Your task to perform on an android device: open app "Pinterest" (install if not already installed) and go to login screen Image 0: 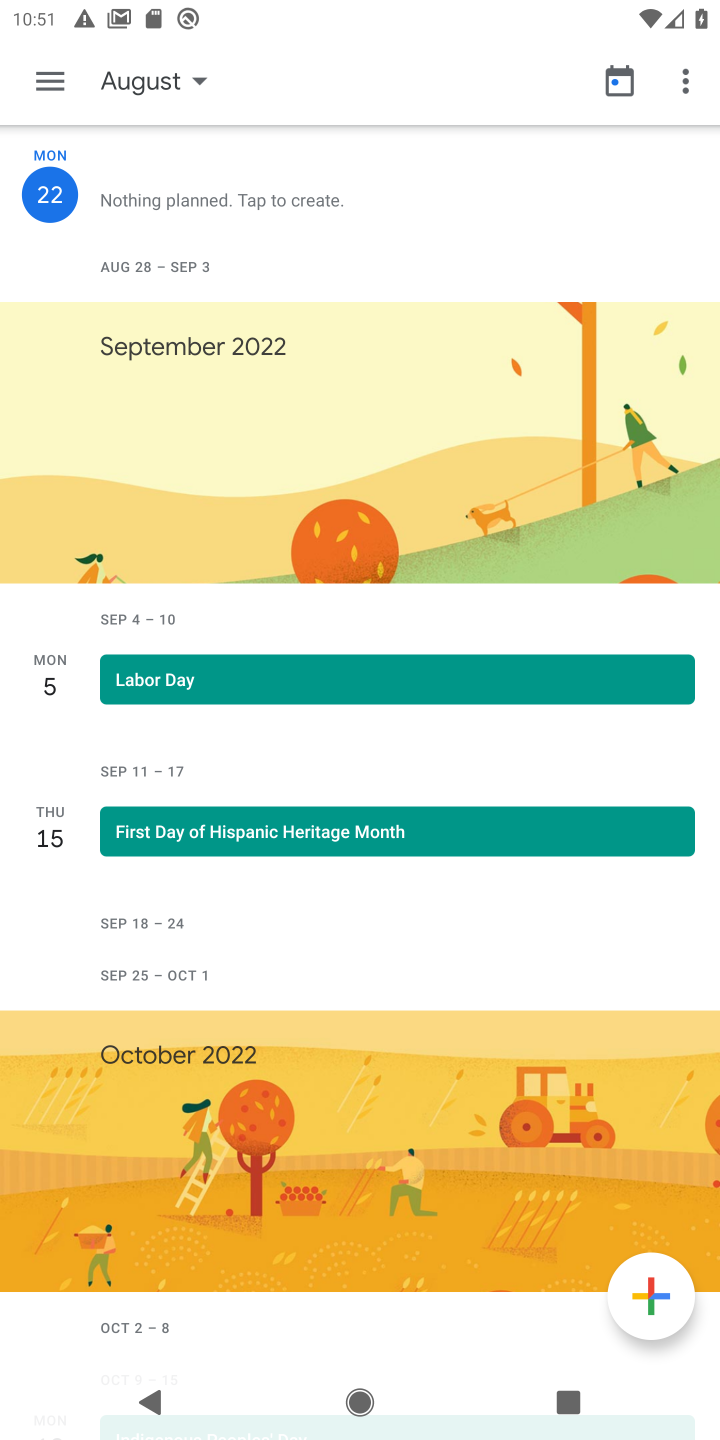
Step 0: press home button
Your task to perform on an android device: open app "Pinterest" (install if not already installed) and go to login screen Image 1: 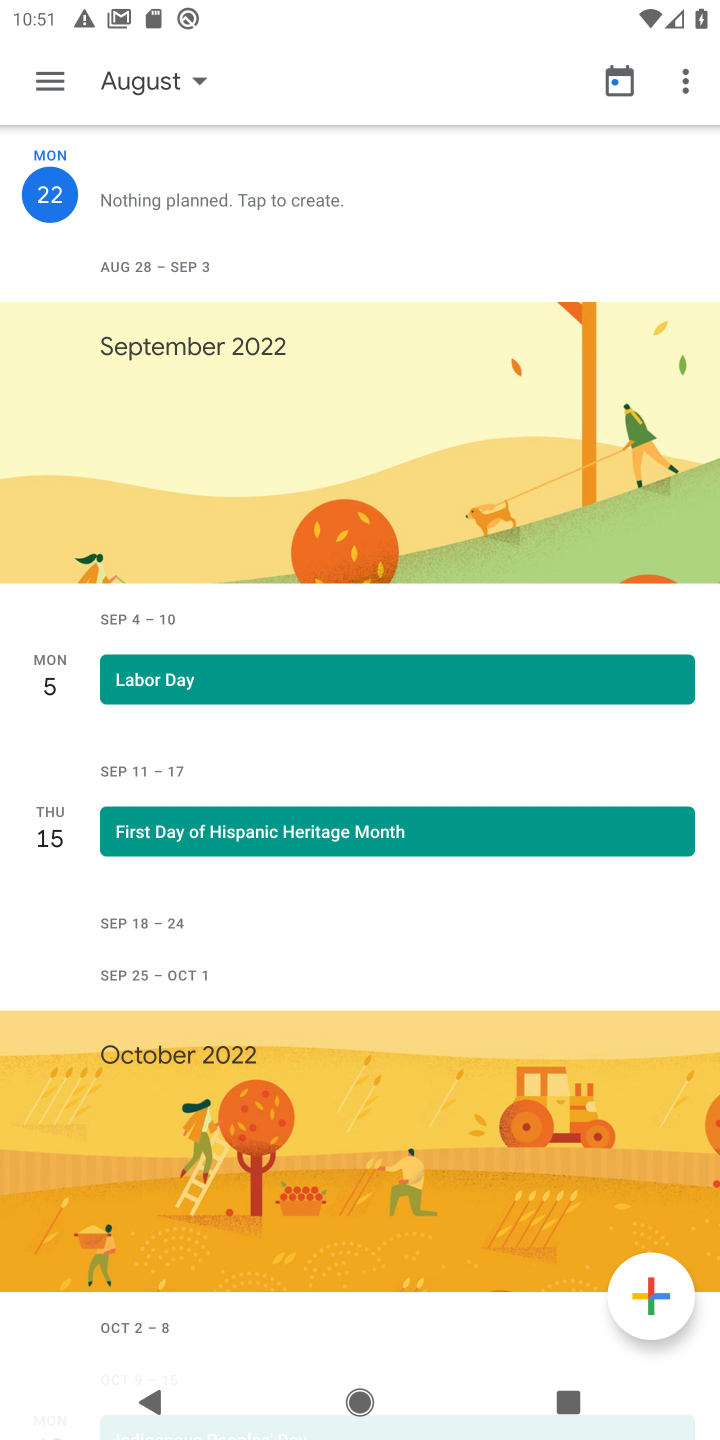
Step 1: press home button
Your task to perform on an android device: open app "Pinterest" (install if not already installed) and go to login screen Image 2: 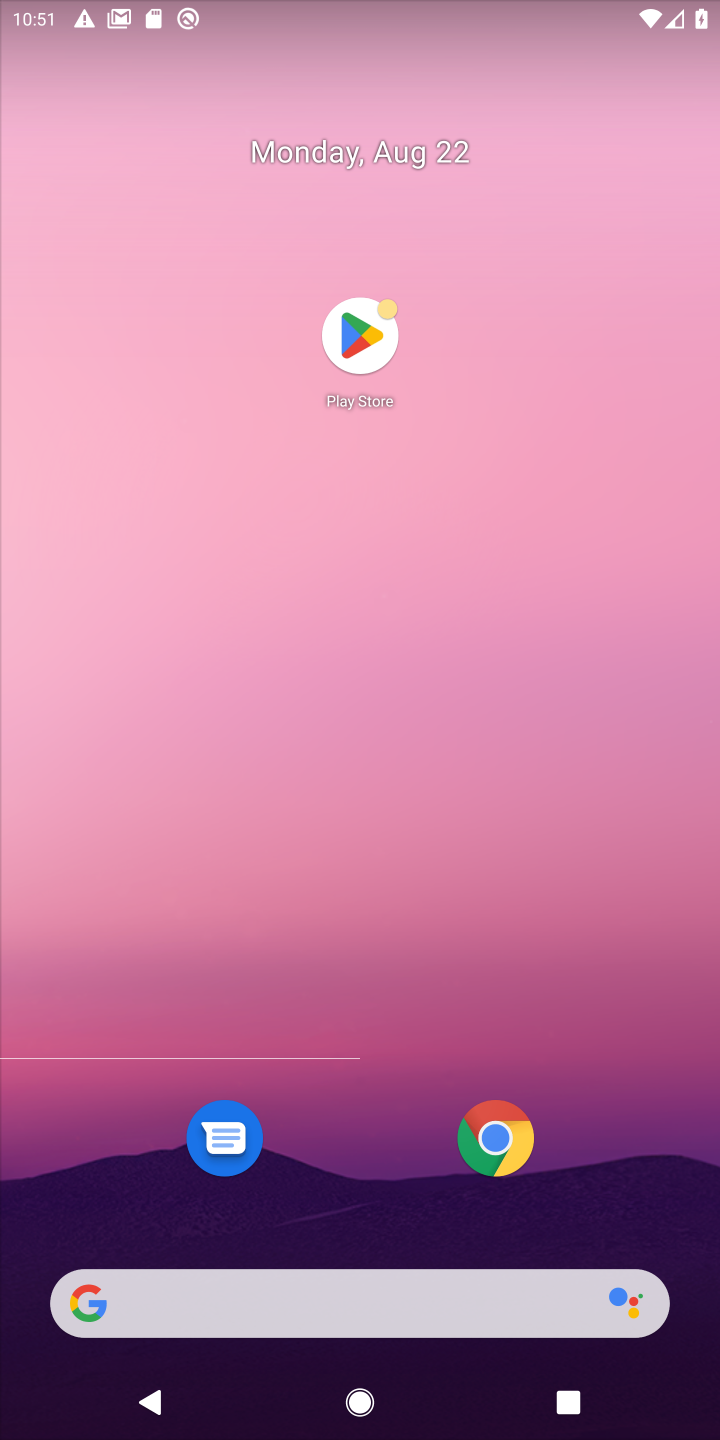
Step 2: press home button
Your task to perform on an android device: open app "Pinterest" (install if not already installed) and go to login screen Image 3: 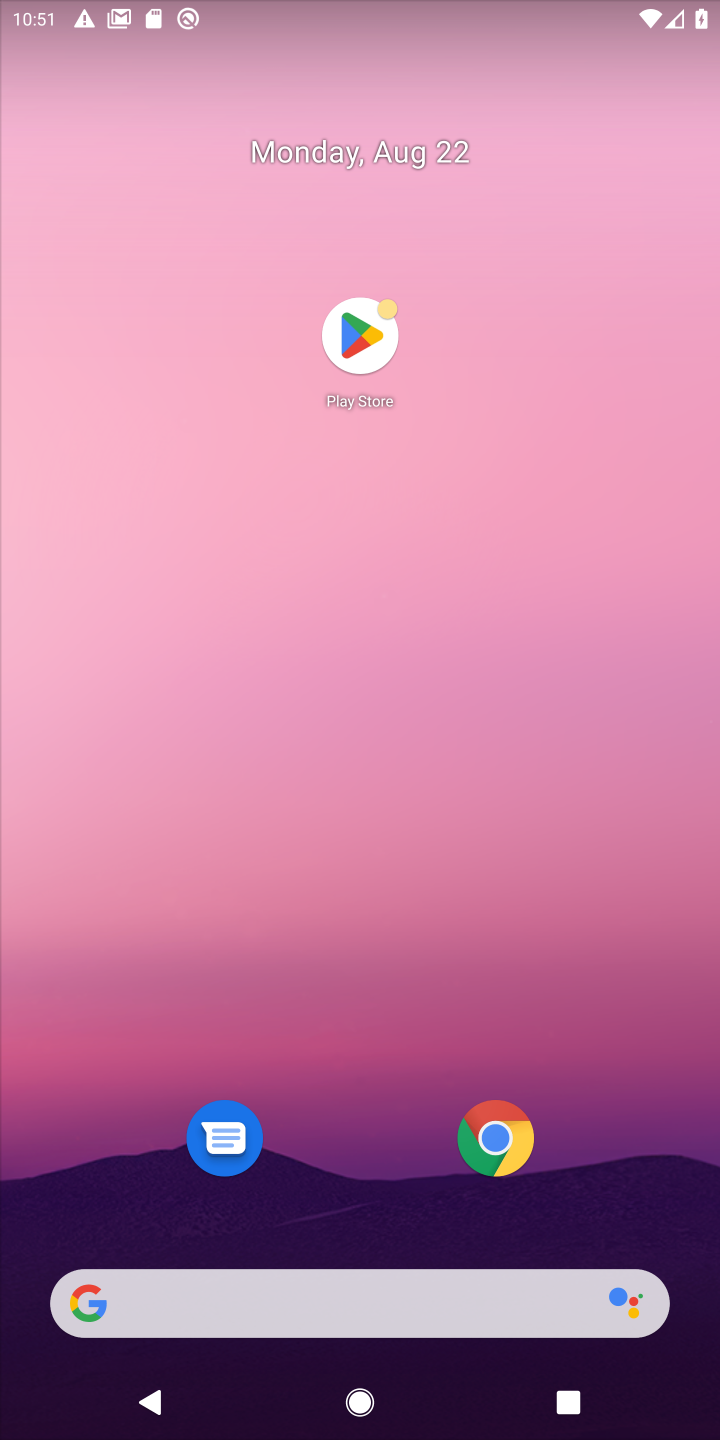
Step 3: click (355, 339)
Your task to perform on an android device: open app "Pinterest" (install if not already installed) and go to login screen Image 4: 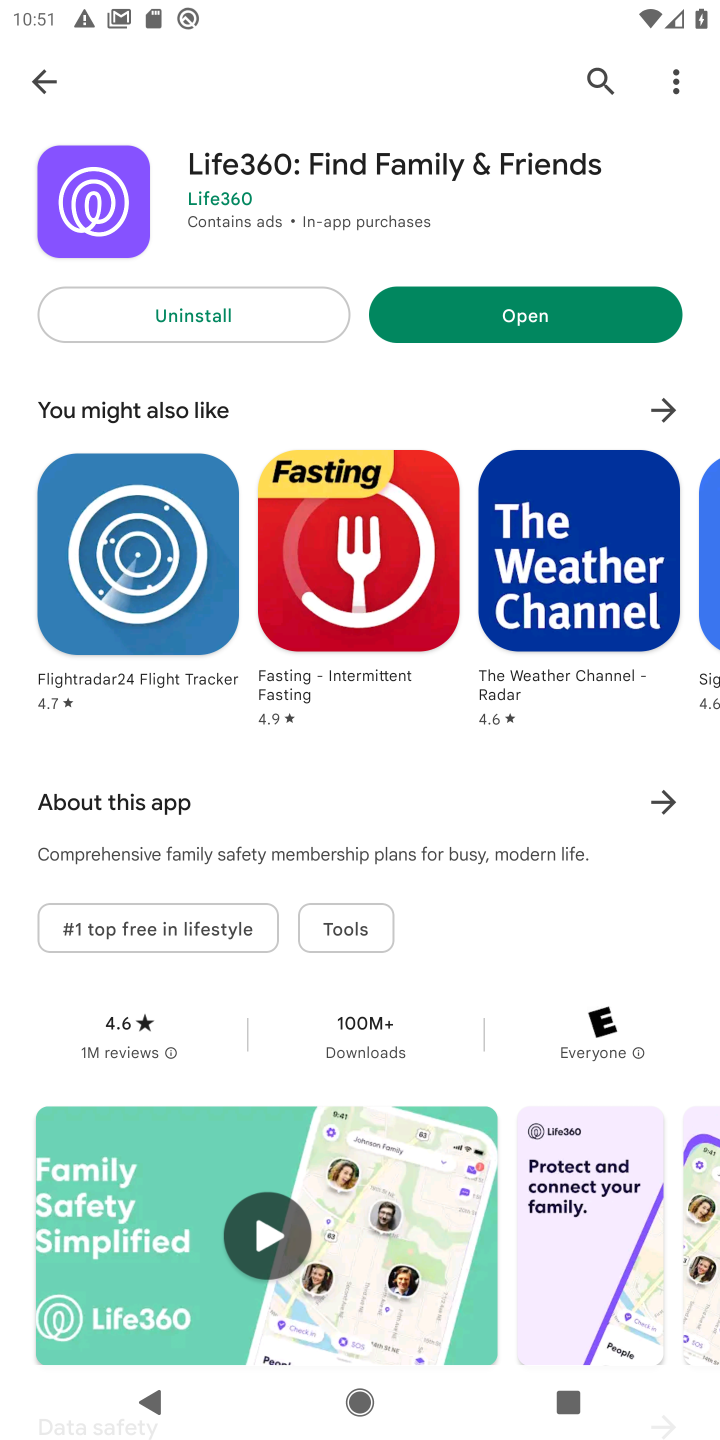
Step 4: click (593, 86)
Your task to perform on an android device: open app "Pinterest" (install if not already installed) and go to login screen Image 5: 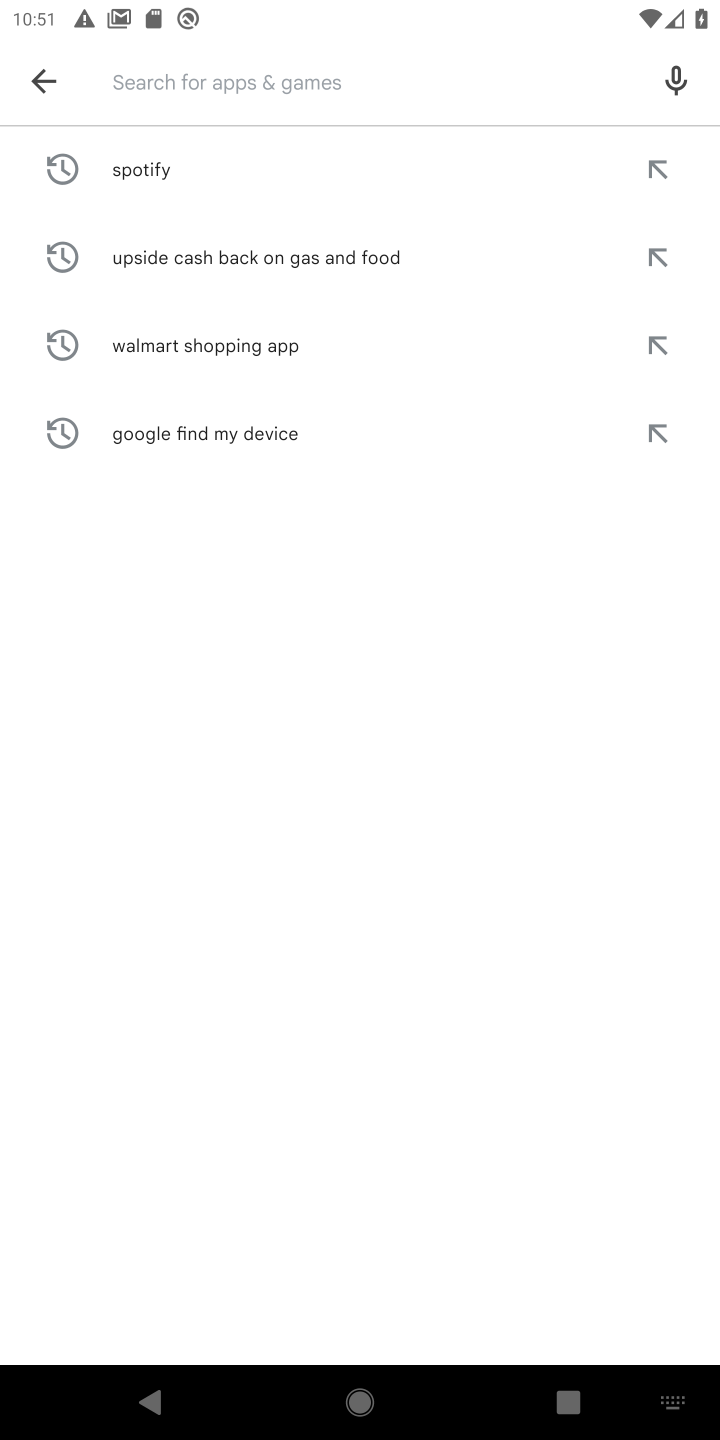
Step 5: click (238, 95)
Your task to perform on an android device: open app "Pinterest" (install if not already installed) and go to login screen Image 6: 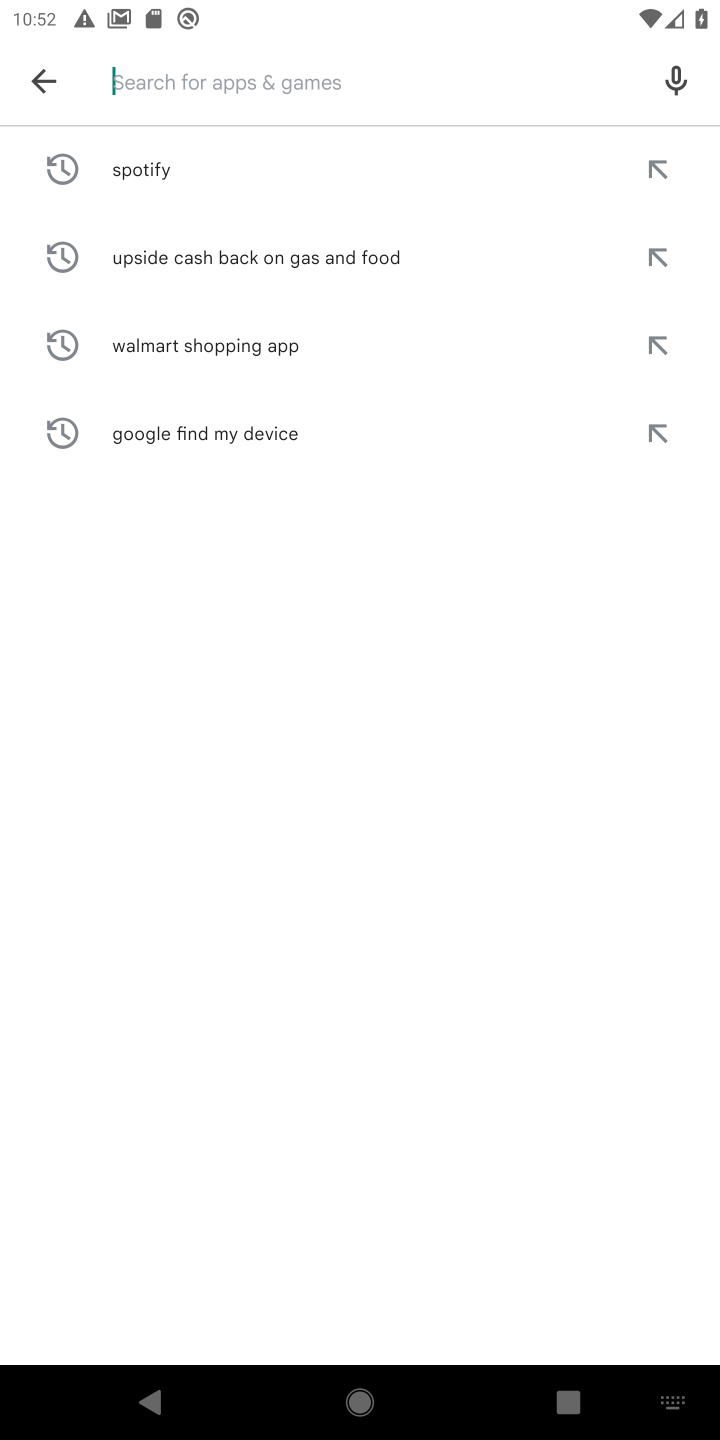
Step 6: type "pinterest"
Your task to perform on an android device: open app "Pinterest" (install if not already installed) and go to login screen Image 7: 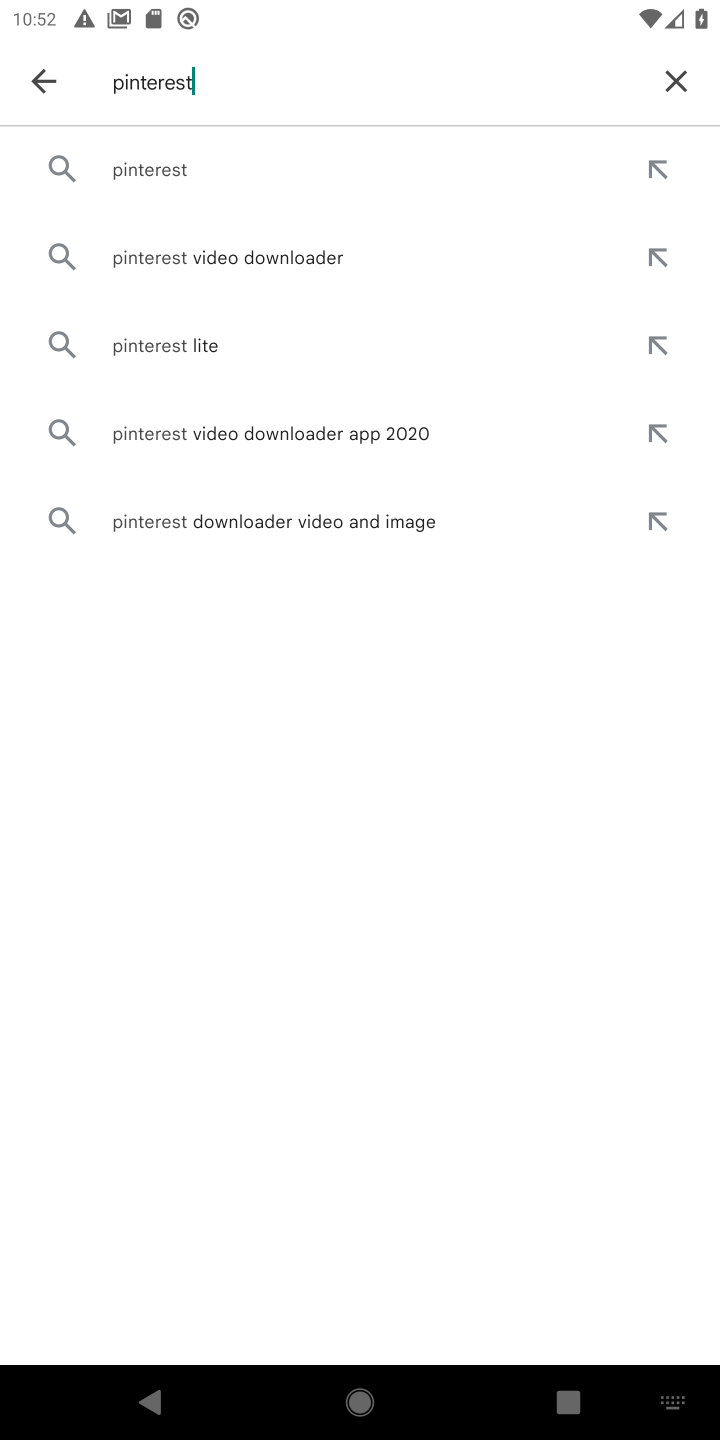
Step 7: click (177, 177)
Your task to perform on an android device: open app "Pinterest" (install if not already installed) and go to login screen Image 8: 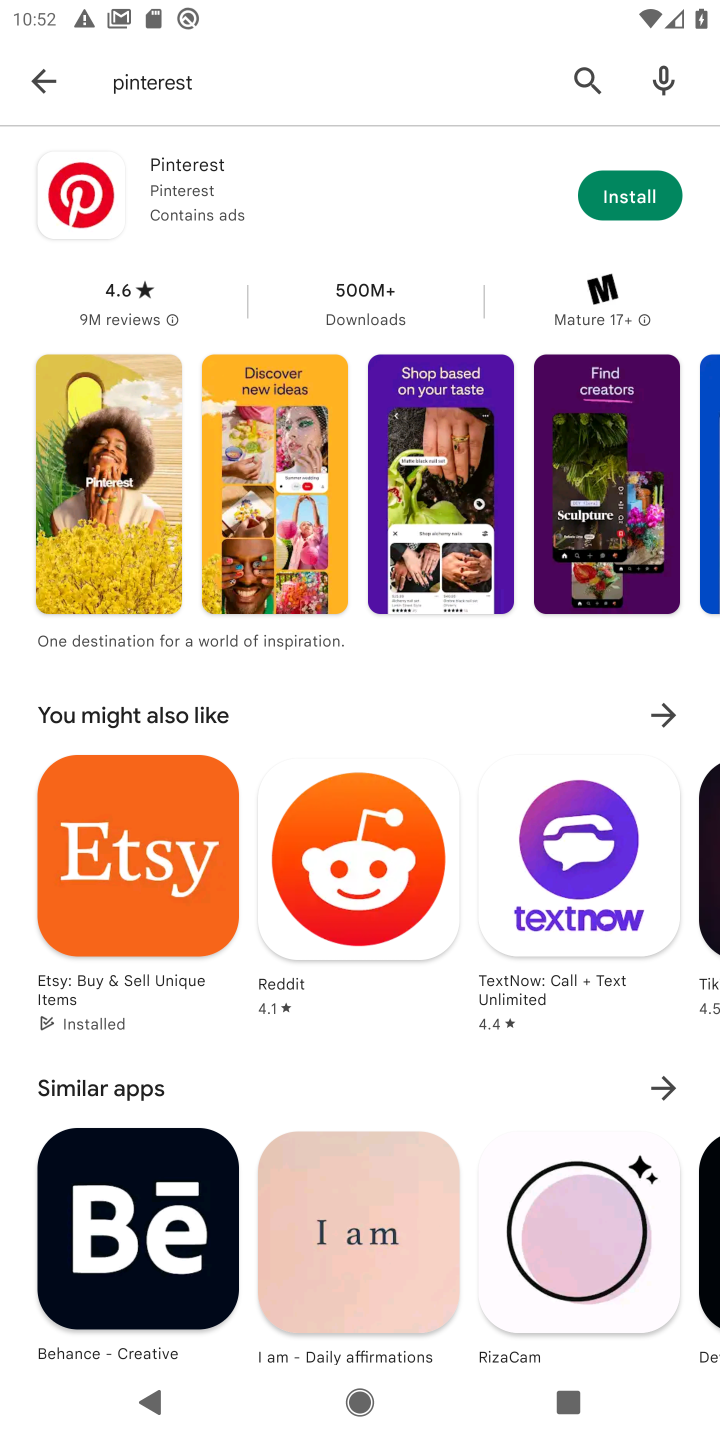
Step 8: click (643, 203)
Your task to perform on an android device: open app "Pinterest" (install if not already installed) and go to login screen Image 9: 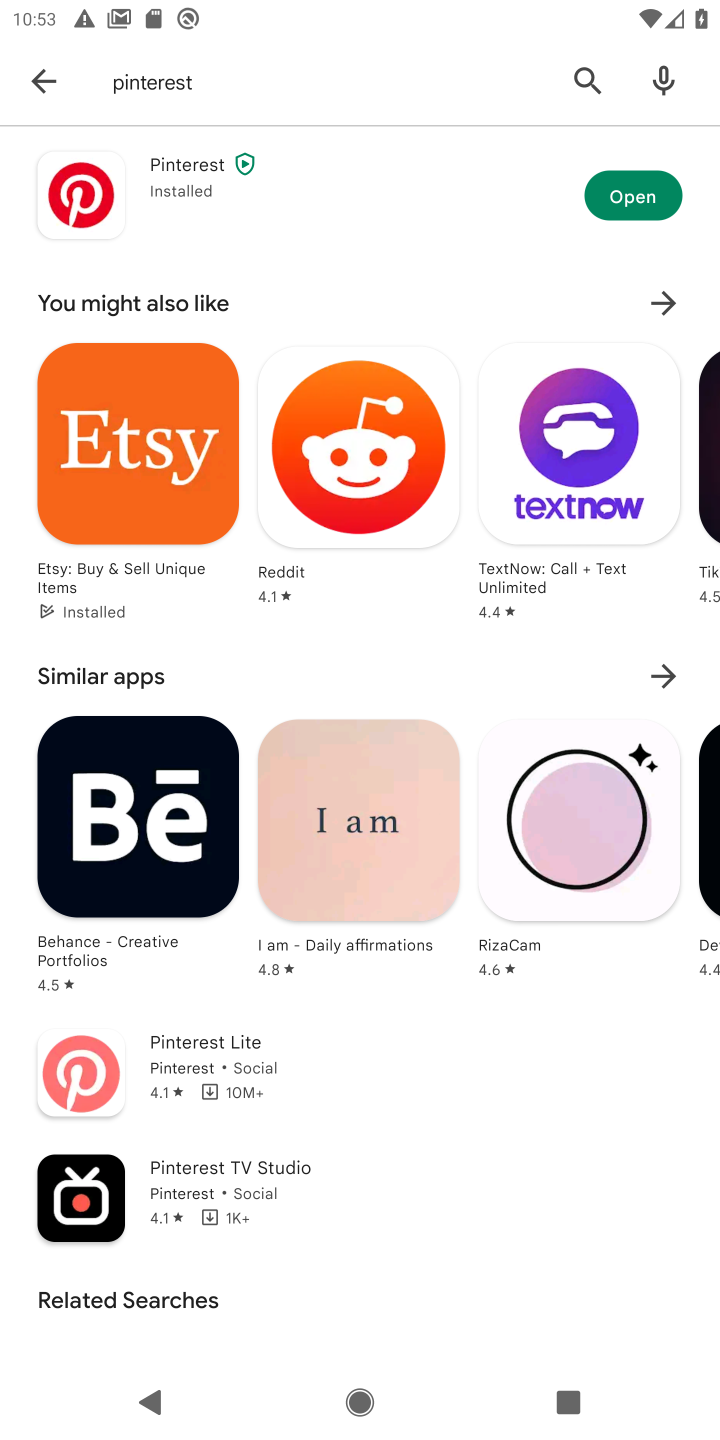
Step 9: click (652, 204)
Your task to perform on an android device: open app "Pinterest" (install if not already installed) and go to login screen Image 10: 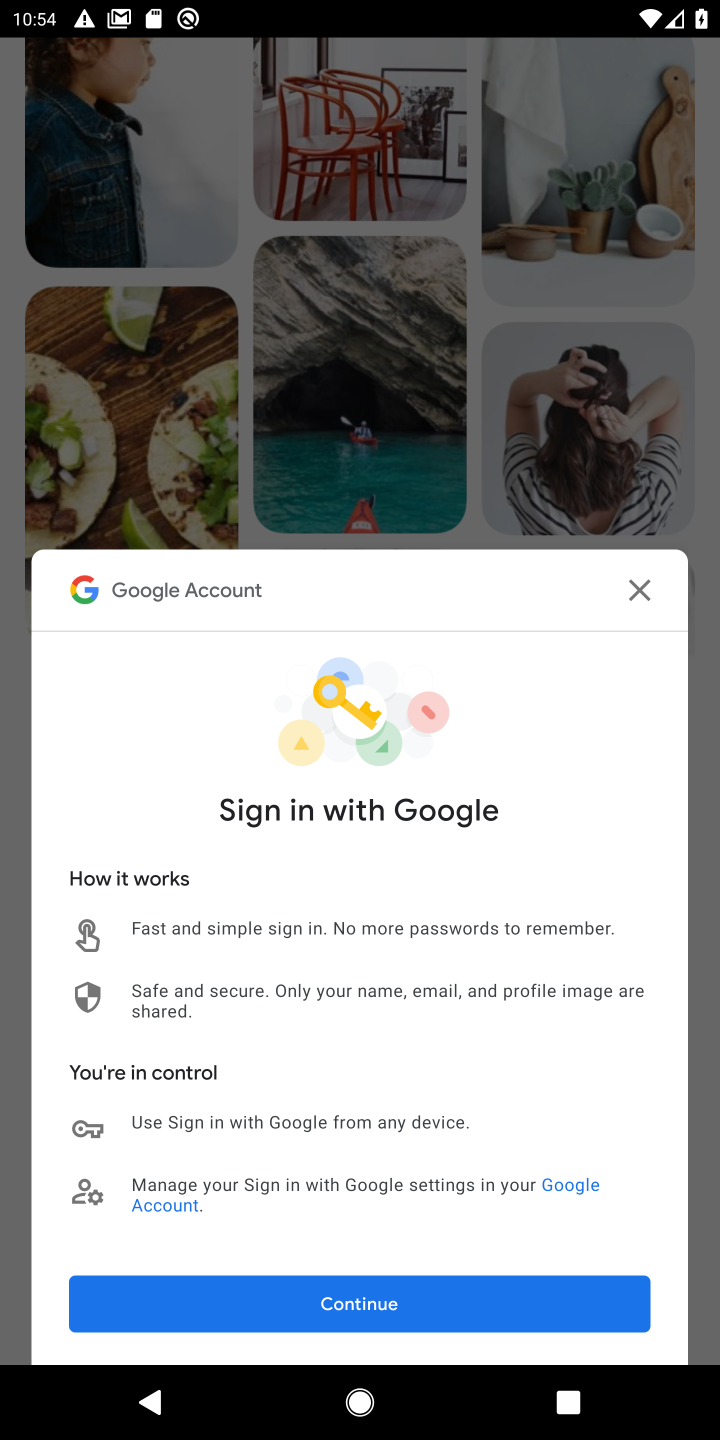
Step 10: task complete